Your task to perform on an android device: Open network settings Image 0: 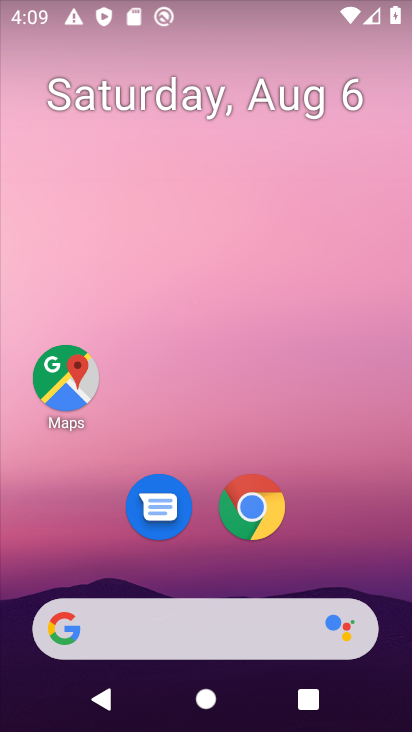
Step 0: drag from (242, 285) to (283, 75)
Your task to perform on an android device: Open network settings Image 1: 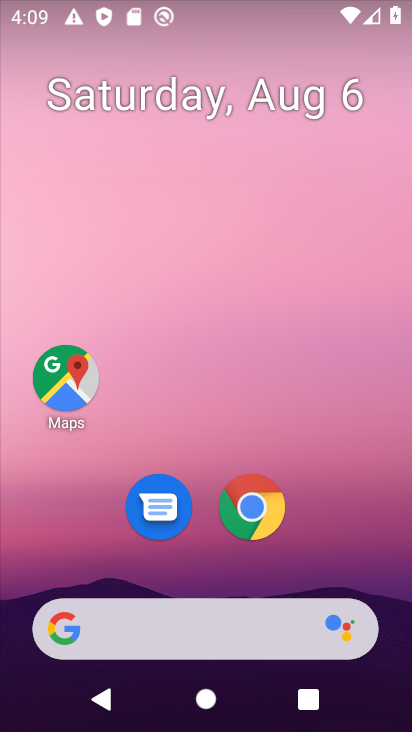
Step 1: drag from (213, 421) to (288, 38)
Your task to perform on an android device: Open network settings Image 2: 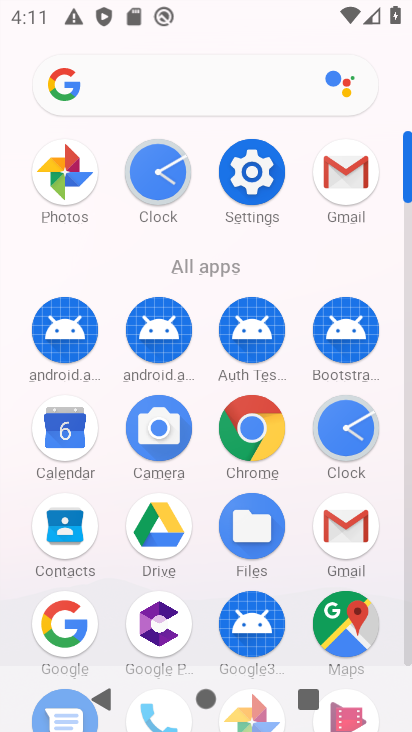
Step 2: click (266, 180)
Your task to perform on an android device: Open network settings Image 3: 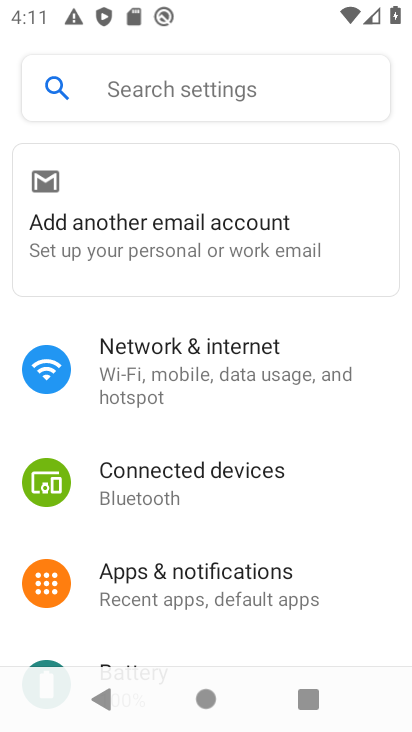
Step 3: task complete